Your task to perform on an android device: turn off notifications in google photos Image 0: 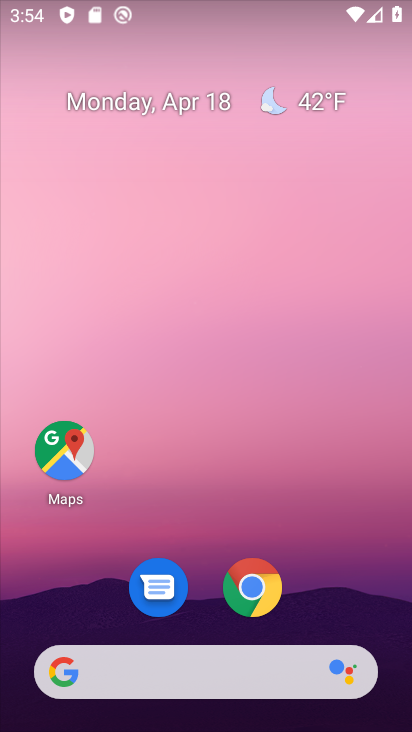
Step 0: drag from (205, 569) to (218, 21)
Your task to perform on an android device: turn off notifications in google photos Image 1: 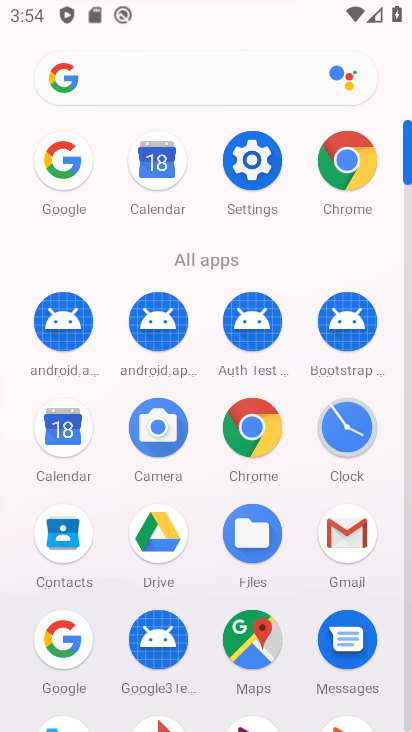
Step 1: drag from (209, 538) to (209, 188)
Your task to perform on an android device: turn off notifications in google photos Image 2: 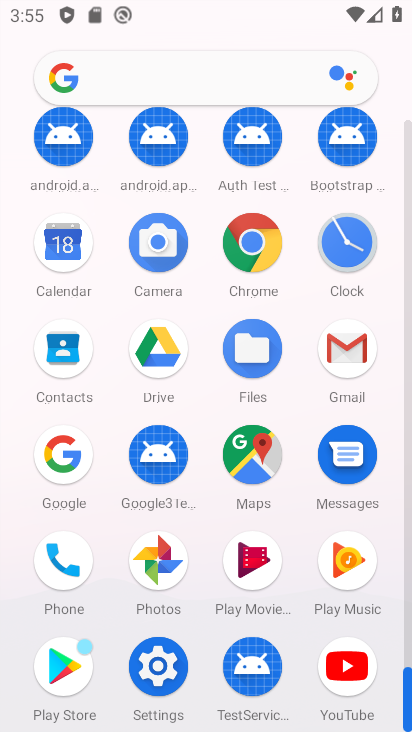
Step 2: click (167, 547)
Your task to perform on an android device: turn off notifications in google photos Image 3: 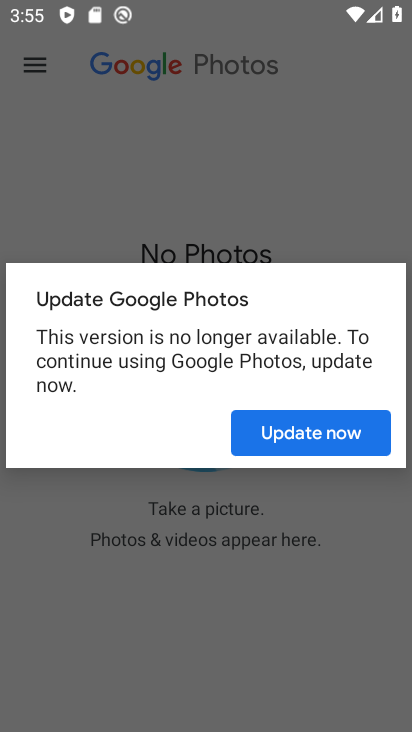
Step 3: click (323, 435)
Your task to perform on an android device: turn off notifications in google photos Image 4: 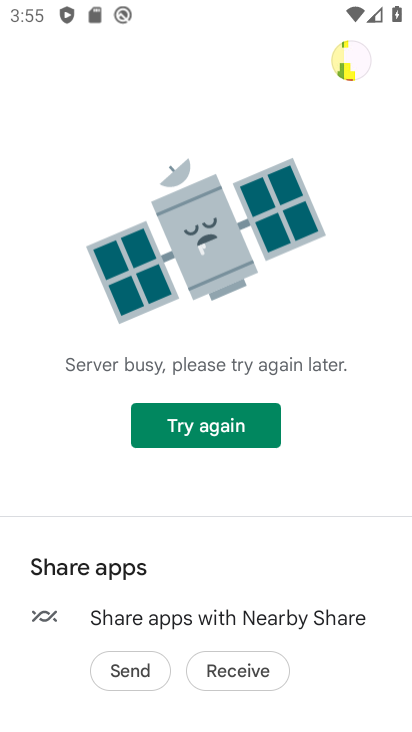
Step 4: click (236, 427)
Your task to perform on an android device: turn off notifications in google photos Image 5: 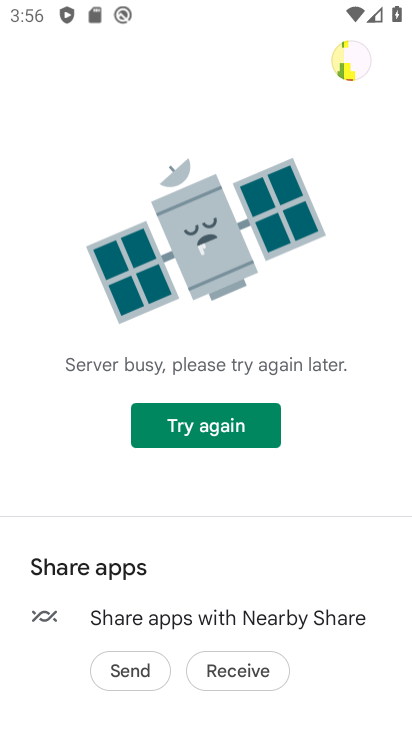
Step 5: task complete